Your task to perform on an android device: change alarm snooze length Image 0: 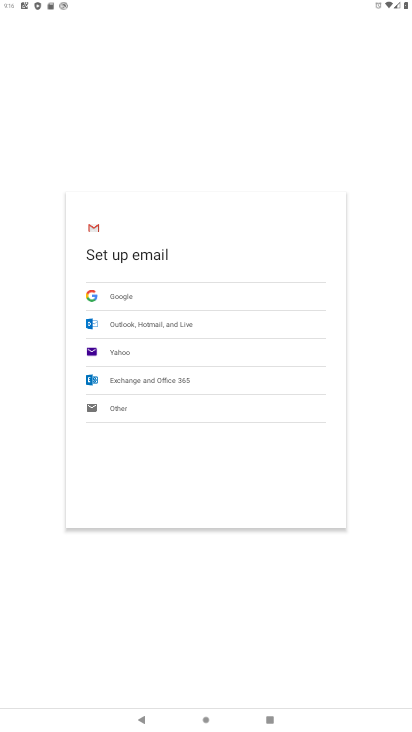
Step 0: press home button
Your task to perform on an android device: change alarm snooze length Image 1: 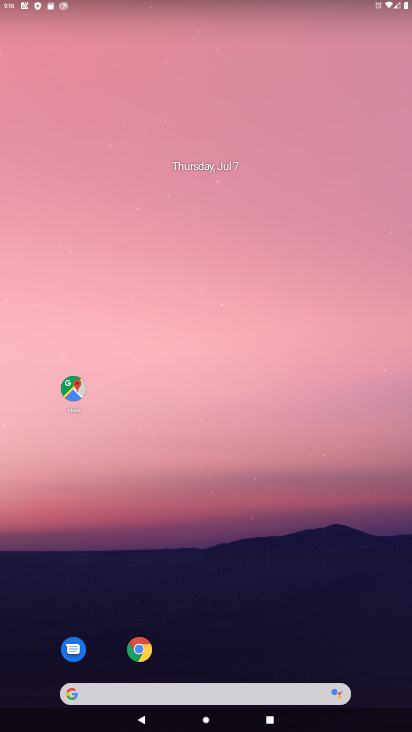
Step 1: drag from (167, 659) to (249, 156)
Your task to perform on an android device: change alarm snooze length Image 2: 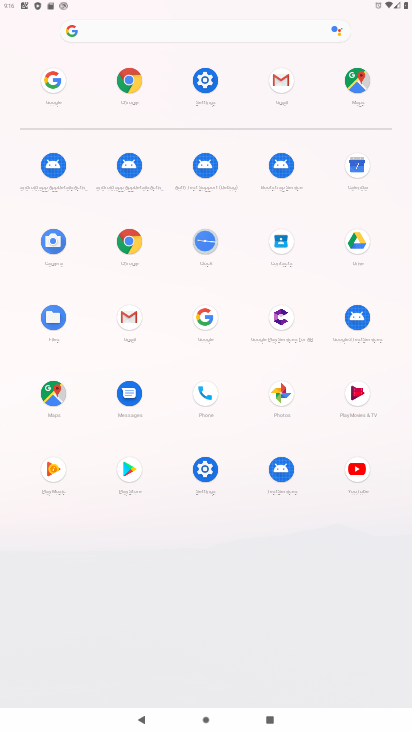
Step 2: click (193, 247)
Your task to perform on an android device: change alarm snooze length Image 3: 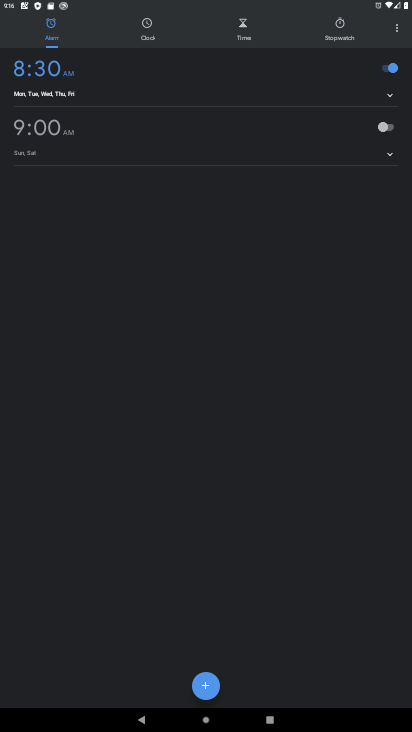
Step 3: click (398, 34)
Your task to perform on an android device: change alarm snooze length Image 4: 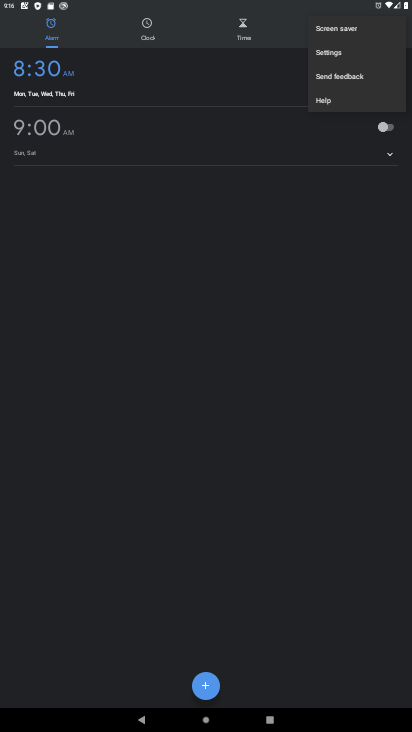
Step 4: click (330, 59)
Your task to perform on an android device: change alarm snooze length Image 5: 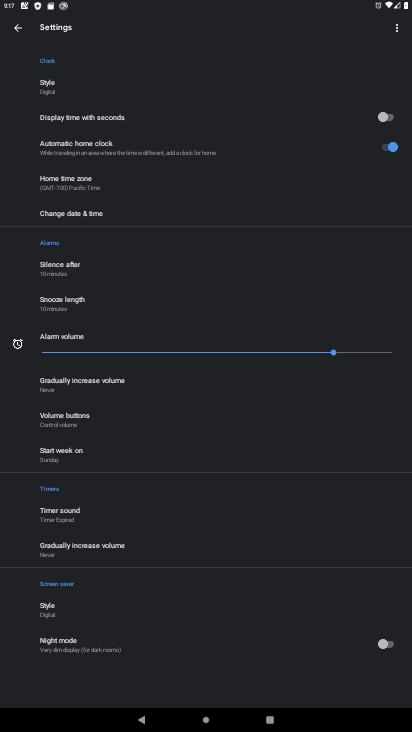
Step 5: click (87, 305)
Your task to perform on an android device: change alarm snooze length Image 6: 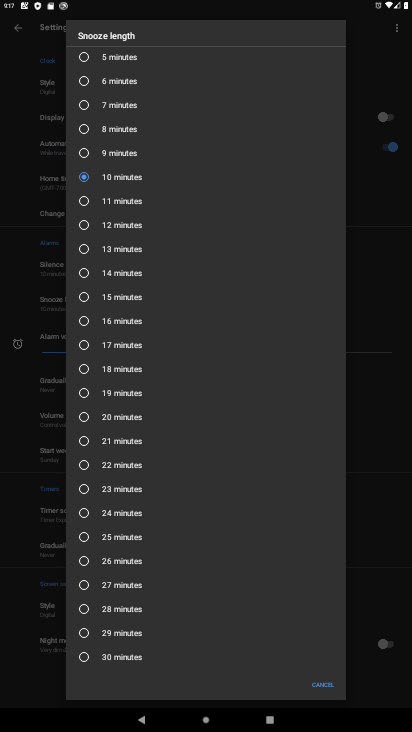
Step 6: click (81, 201)
Your task to perform on an android device: change alarm snooze length Image 7: 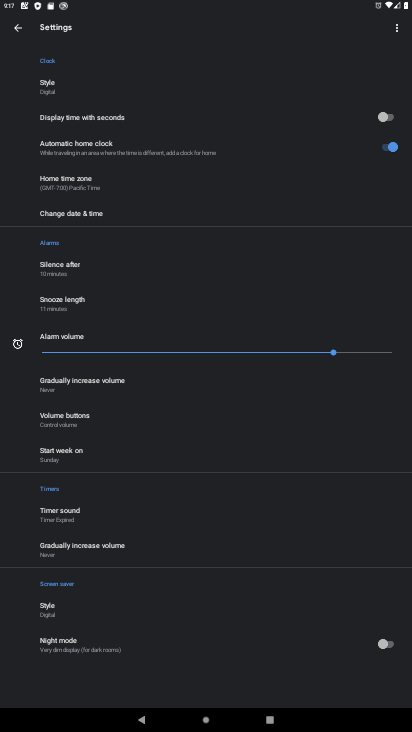
Step 7: task complete